Your task to perform on an android device: check the backup settings in the google photos Image 0: 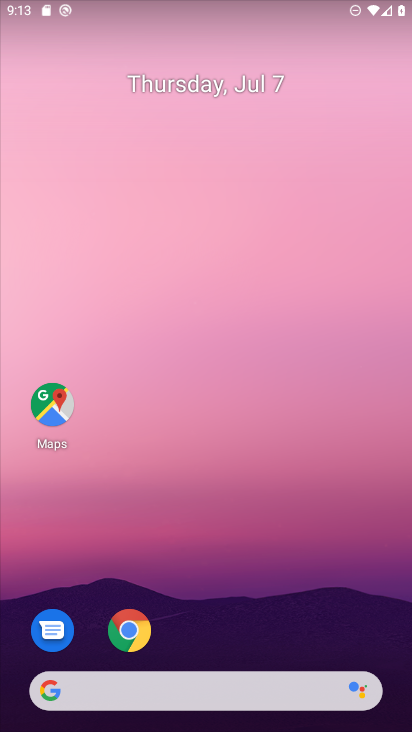
Step 0: click (288, 80)
Your task to perform on an android device: check the backup settings in the google photos Image 1: 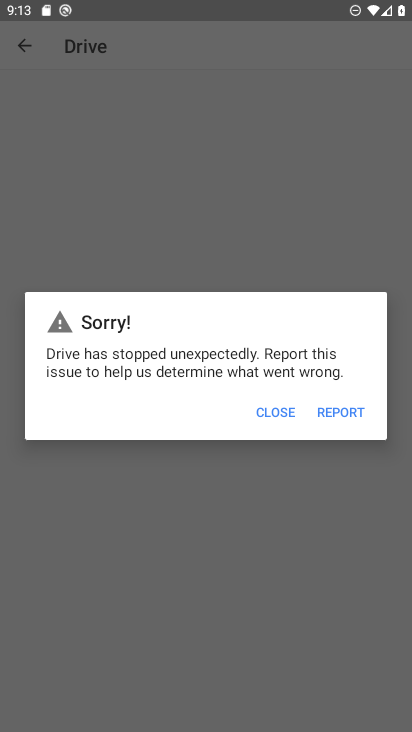
Step 1: press home button
Your task to perform on an android device: check the backup settings in the google photos Image 2: 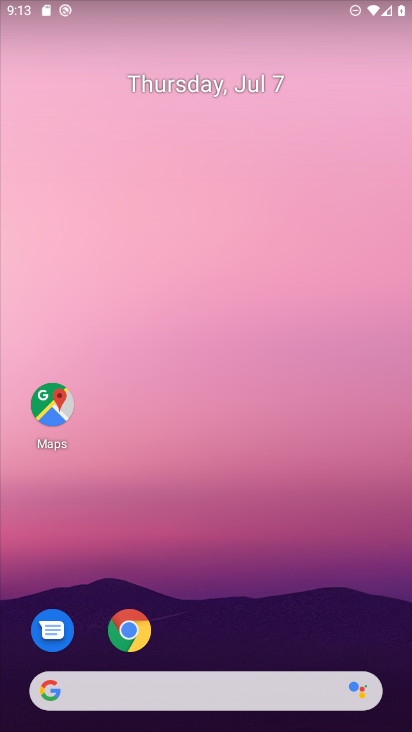
Step 2: drag from (191, 705) to (234, 149)
Your task to perform on an android device: check the backup settings in the google photos Image 3: 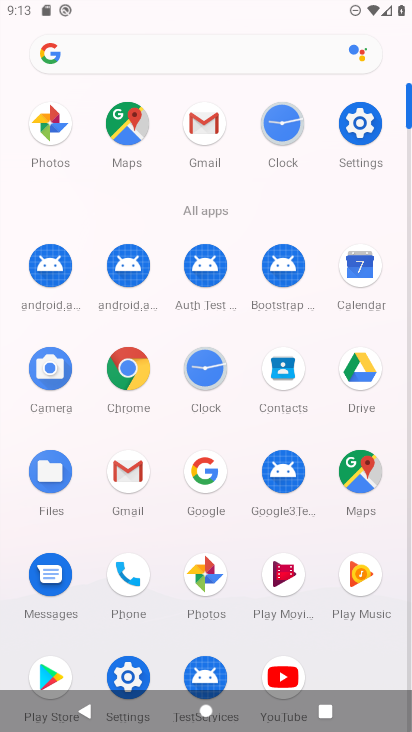
Step 3: click (218, 587)
Your task to perform on an android device: check the backup settings in the google photos Image 4: 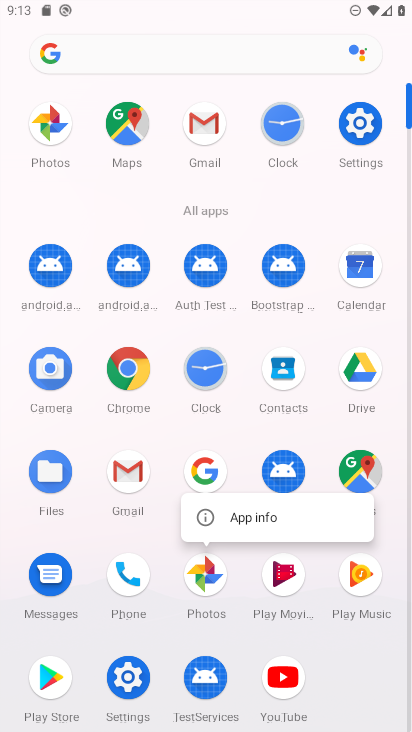
Step 4: click (211, 592)
Your task to perform on an android device: check the backup settings in the google photos Image 5: 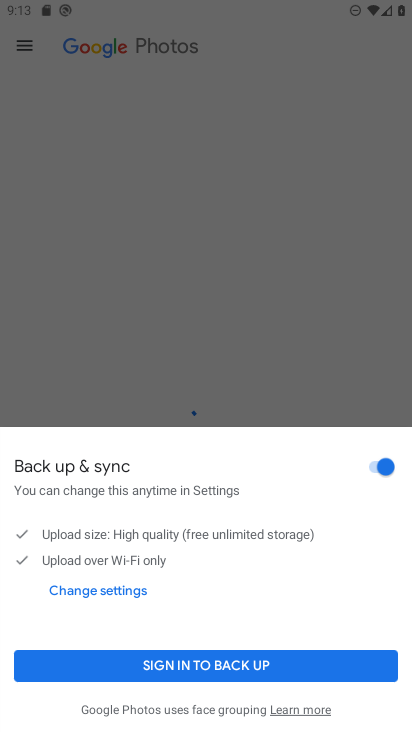
Step 5: click (222, 660)
Your task to perform on an android device: check the backup settings in the google photos Image 6: 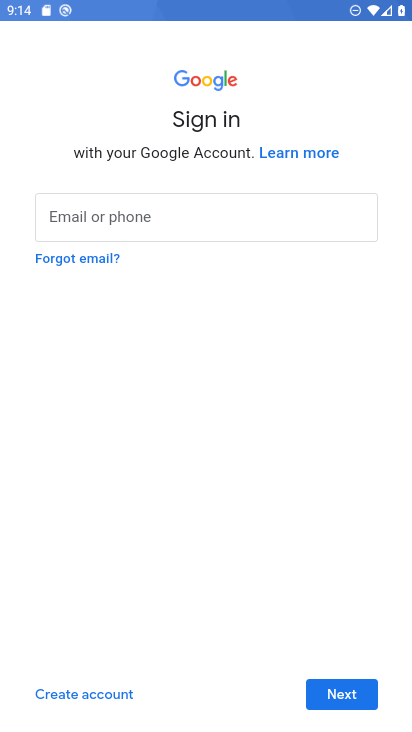
Step 6: task complete